Your task to perform on an android device: toggle javascript in the chrome app Image 0: 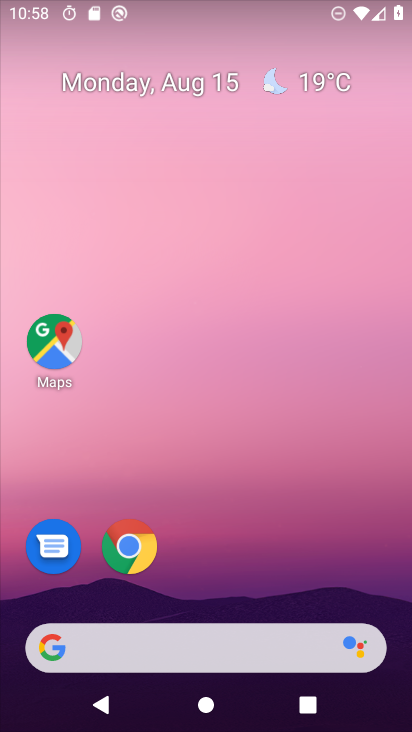
Step 0: click (136, 542)
Your task to perform on an android device: toggle javascript in the chrome app Image 1: 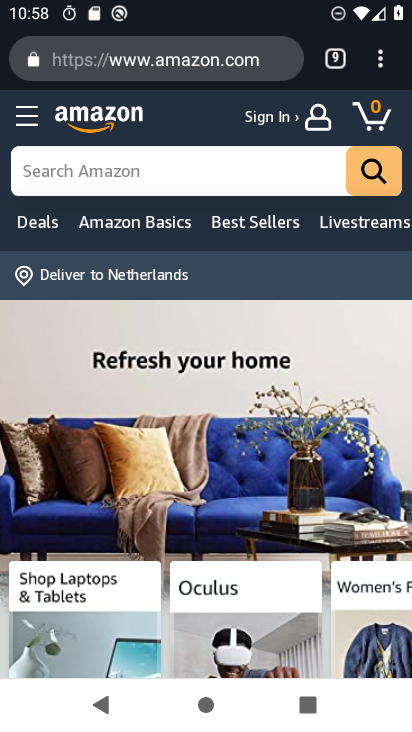
Step 1: click (385, 68)
Your task to perform on an android device: toggle javascript in the chrome app Image 2: 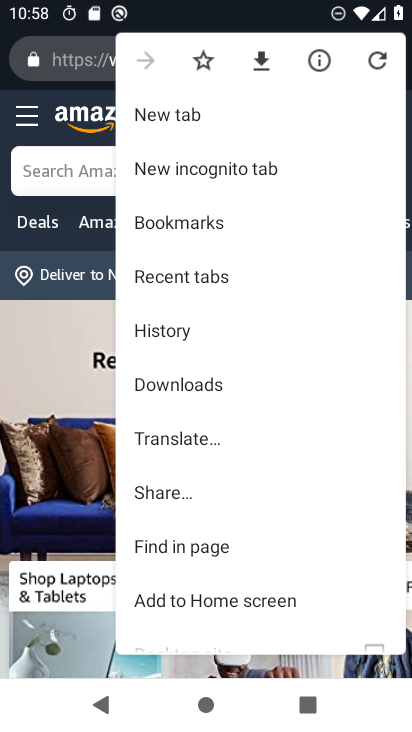
Step 2: drag from (182, 568) to (182, 220)
Your task to perform on an android device: toggle javascript in the chrome app Image 3: 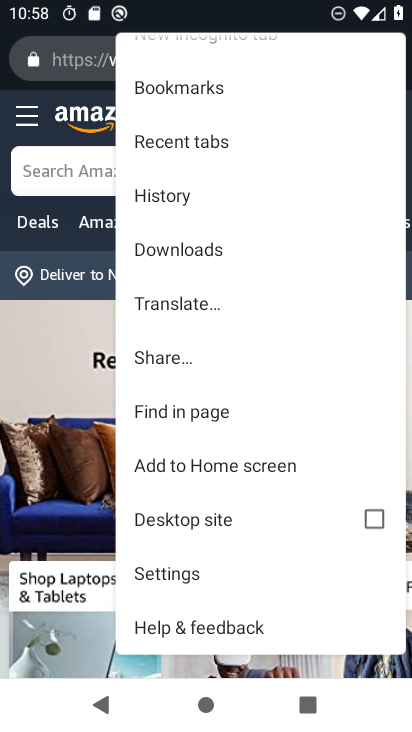
Step 3: click (171, 575)
Your task to perform on an android device: toggle javascript in the chrome app Image 4: 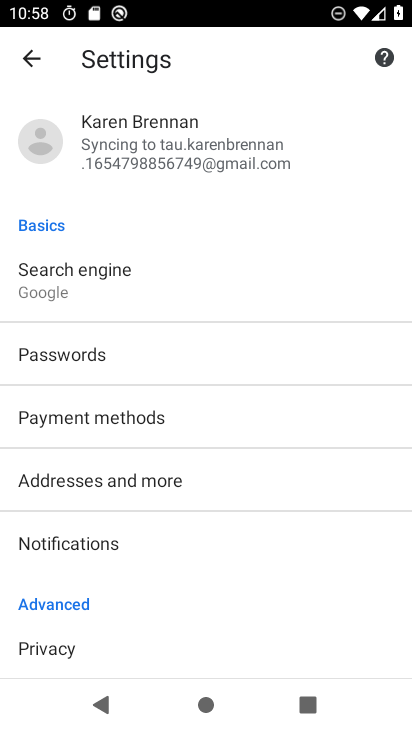
Step 4: drag from (158, 605) to (174, 237)
Your task to perform on an android device: toggle javascript in the chrome app Image 5: 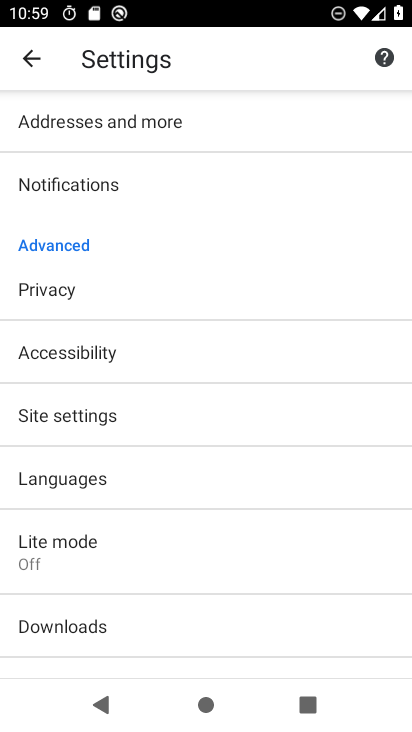
Step 5: click (97, 414)
Your task to perform on an android device: toggle javascript in the chrome app Image 6: 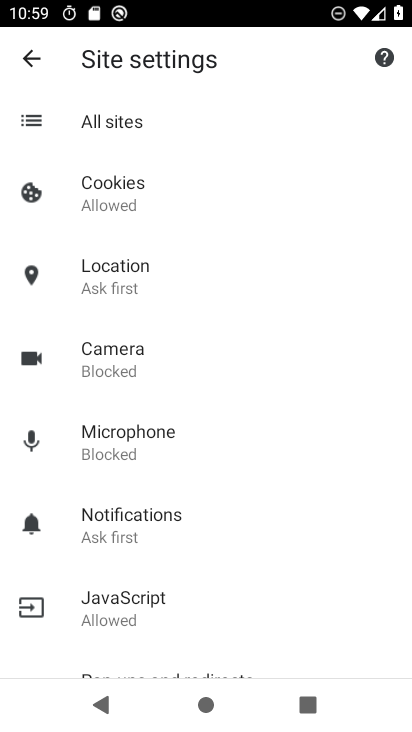
Step 6: click (105, 608)
Your task to perform on an android device: toggle javascript in the chrome app Image 7: 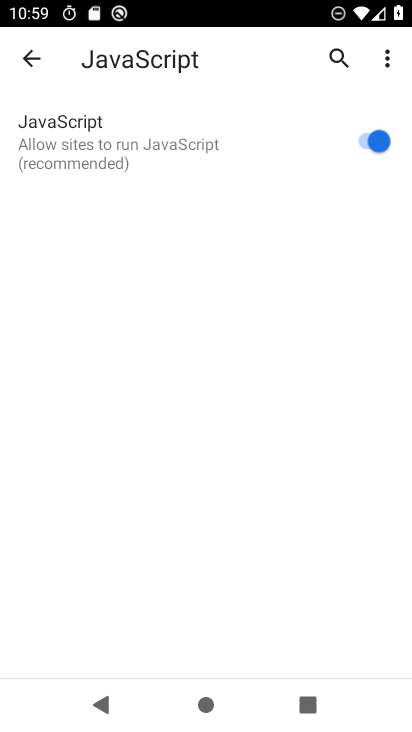
Step 7: click (362, 132)
Your task to perform on an android device: toggle javascript in the chrome app Image 8: 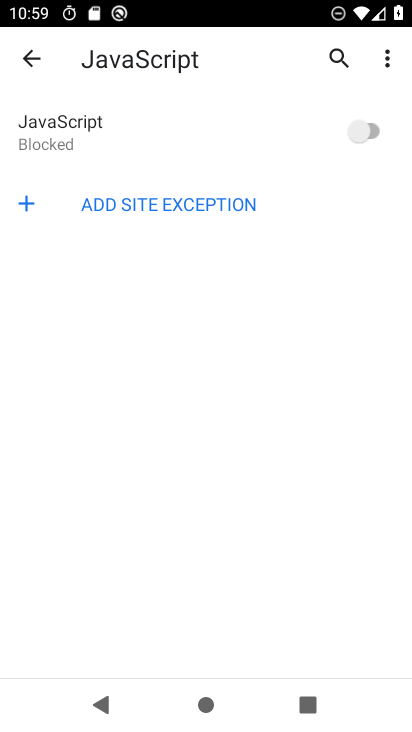
Step 8: task complete